Your task to perform on an android device: open chrome and create a bookmark for the current page Image 0: 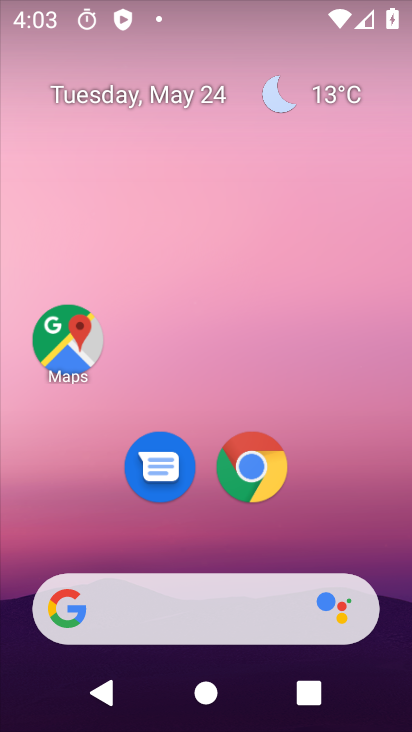
Step 0: drag from (318, 495) to (312, 43)
Your task to perform on an android device: open chrome and create a bookmark for the current page Image 1: 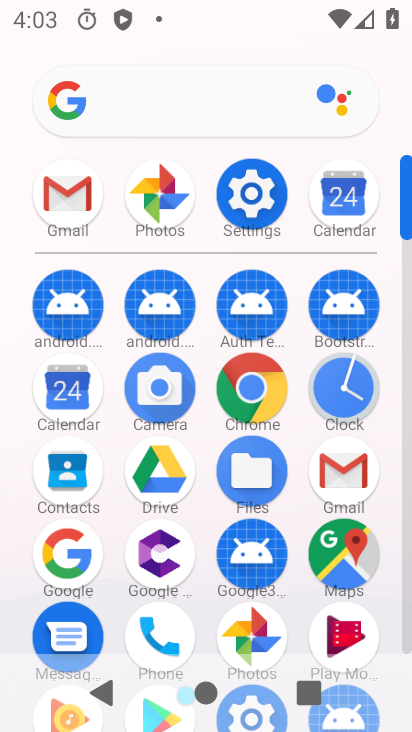
Step 1: click (257, 391)
Your task to perform on an android device: open chrome and create a bookmark for the current page Image 2: 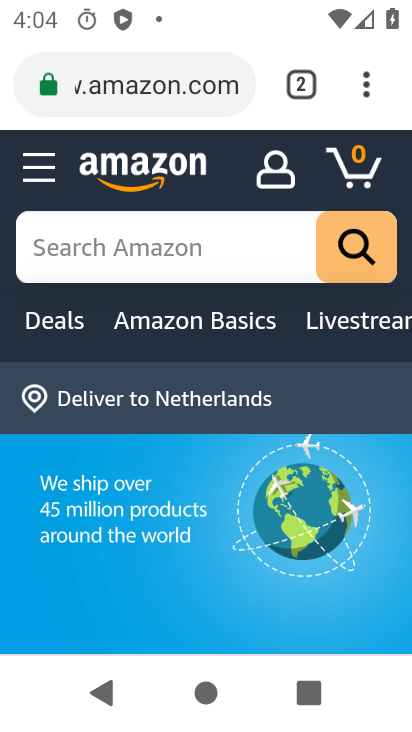
Step 2: click (375, 76)
Your task to perform on an android device: open chrome and create a bookmark for the current page Image 3: 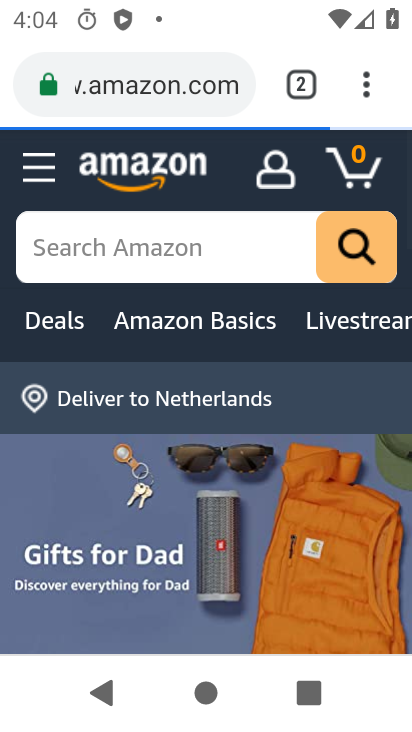
Step 3: task complete